Your task to perform on an android device: open app "Fetch Rewards" Image 0: 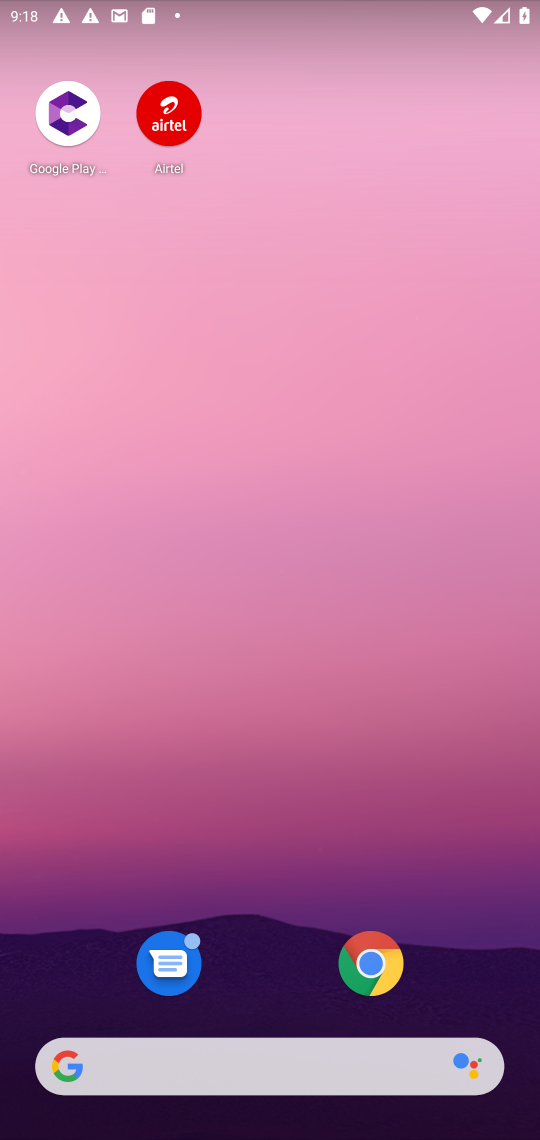
Step 0: drag from (257, 955) to (174, 46)
Your task to perform on an android device: open app "Fetch Rewards" Image 1: 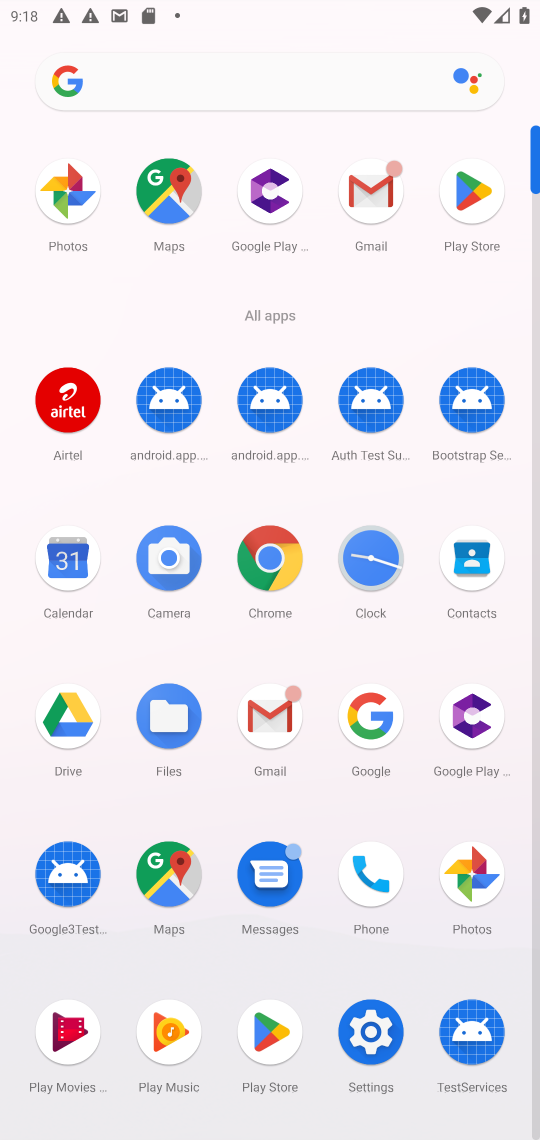
Step 1: click (468, 199)
Your task to perform on an android device: open app "Fetch Rewards" Image 2: 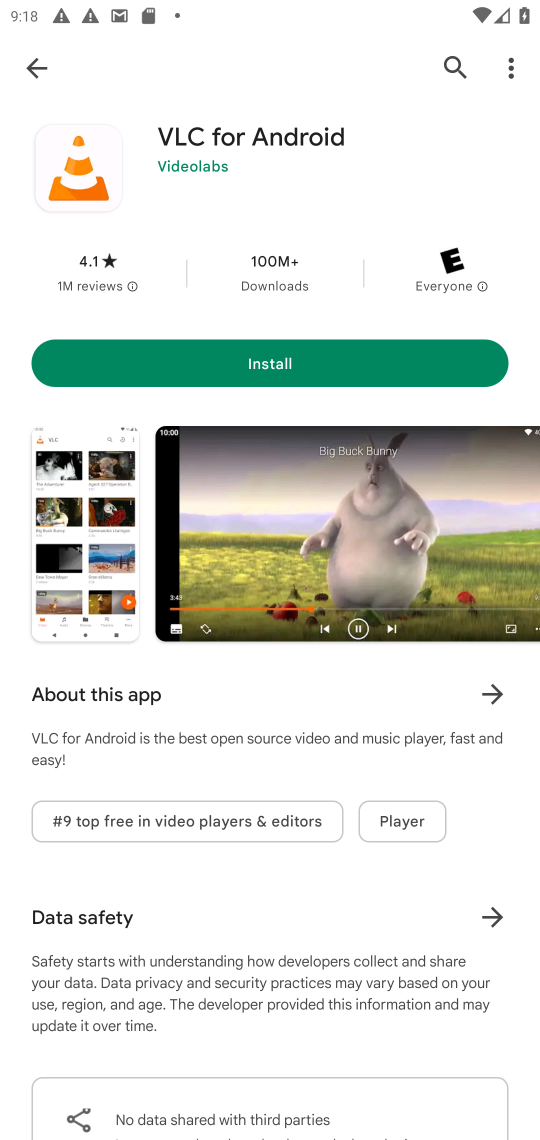
Step 2: click (447, 76)
Your task to perform on an android device: open app "Fetch Rewards" Image 3: 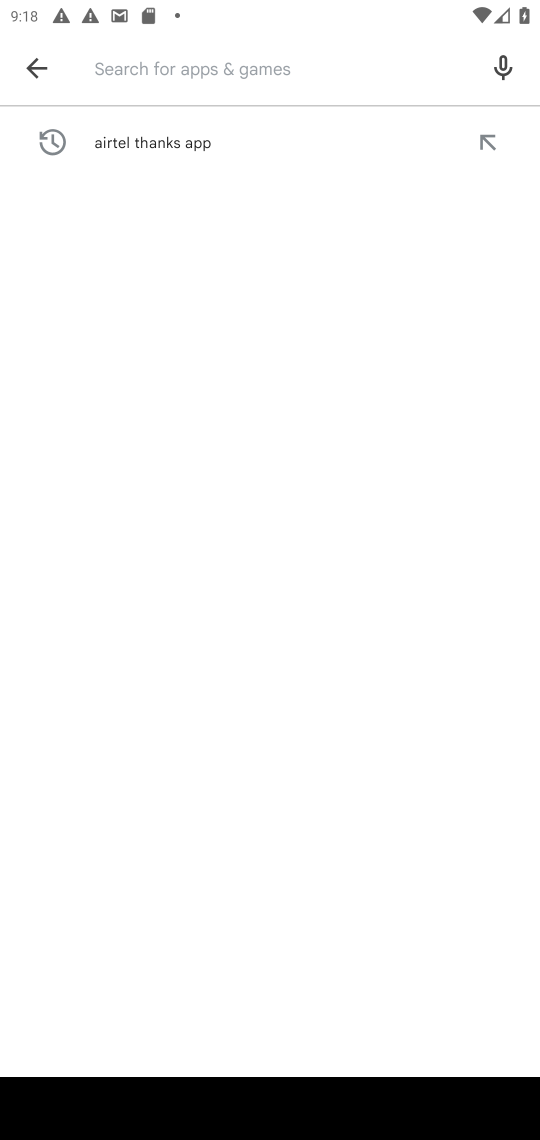
Step 3: type "fetch rewards"
Your task to perform on an android device: open app "Fetch Rewards" Image 4: 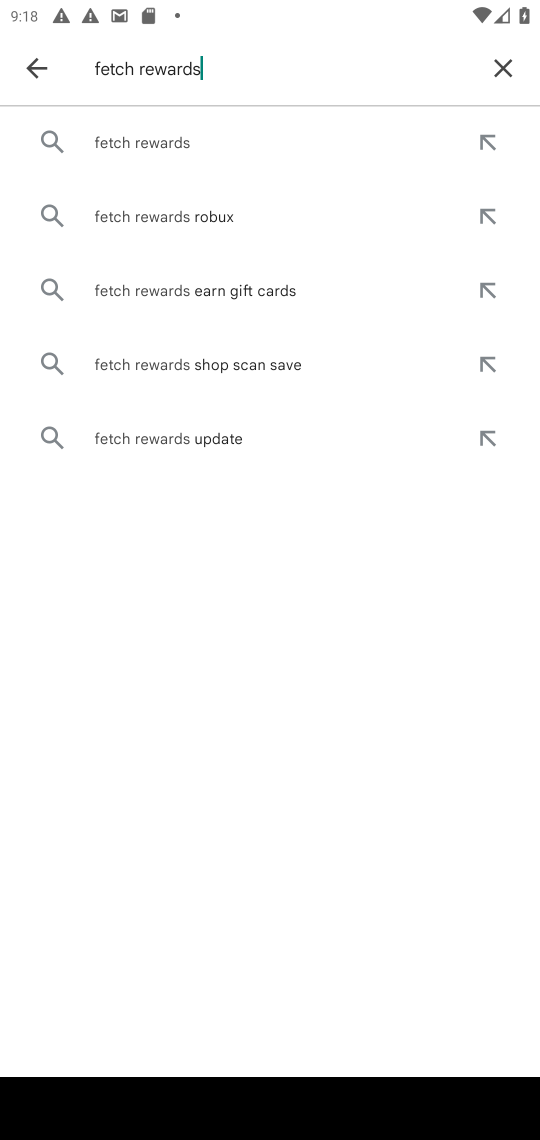
Step 4: click (247, 127)
Your task to perform on an android device: open app "Fetch Rewards" Image 5: 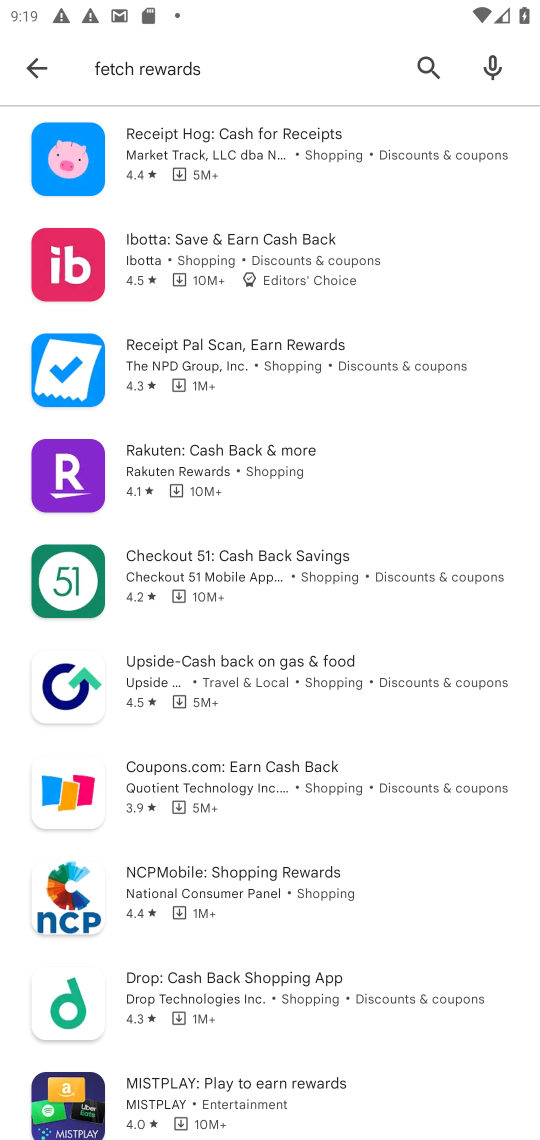
Step 5: task complete